Your task to perform on an android device: Go to battery settings Image 0: 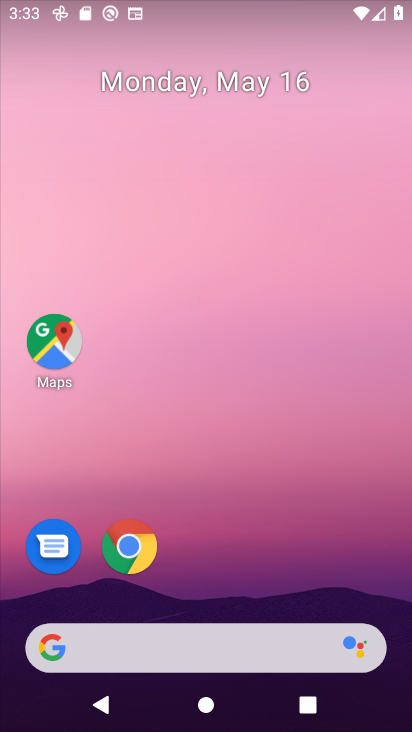
Step 0: drag from (361, 587) to (381, 155)
Your task to perform on an android device: Go to battery settings Image 1: 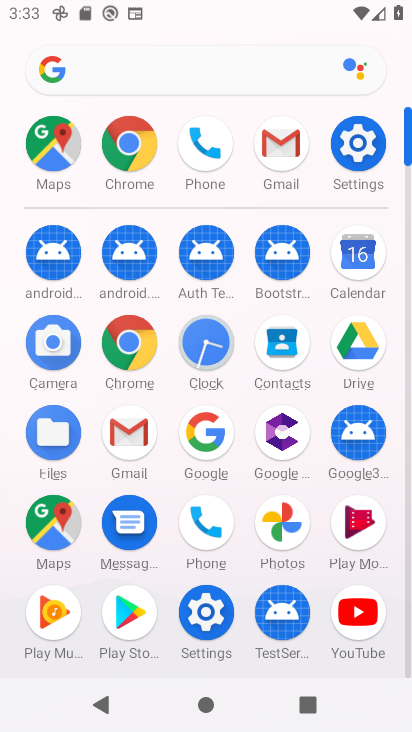
Step 1: click (365, 157)
Your task to perform on an android device: Go to battery settings Image 2: 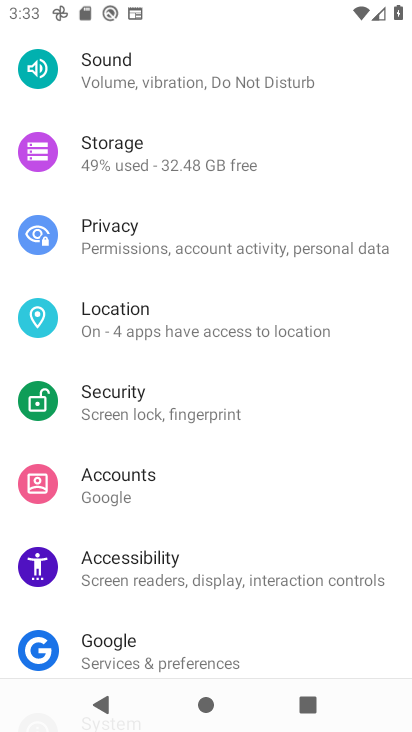
Step 2: drag from (322, 512) to (315, 425)
Your task to perform on an android device: Go to battery settings Image 3: 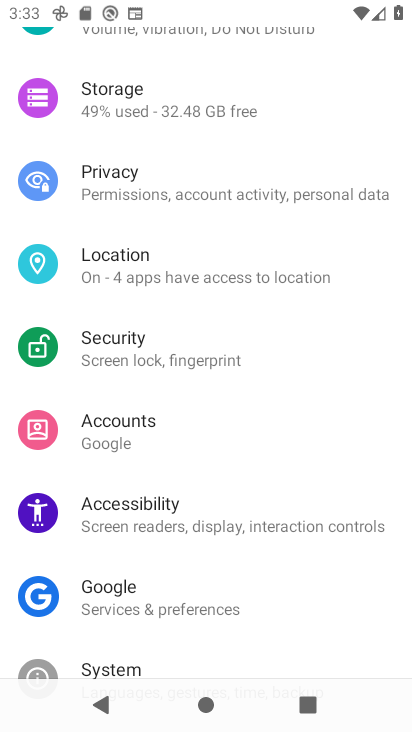
Step 3: drag from (321, 624) to (325, 444)
Your task to perform on an android device: Go to battery settings Image 4: 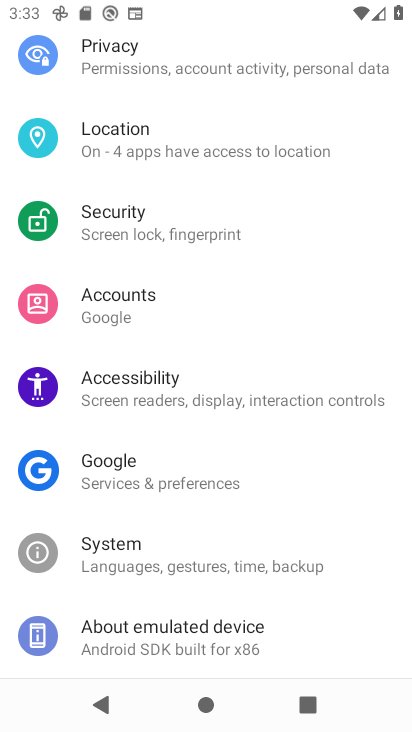
Step 4: drag from (329, 640) to (328, 443)
Your task to perform on an android device: Go to battery settings Image 5: 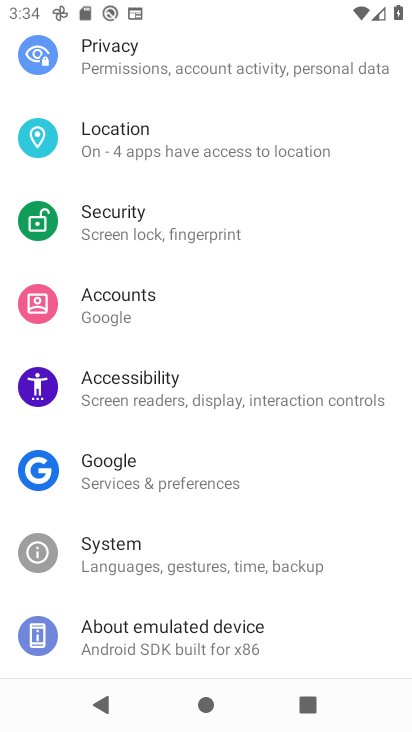
Step 5: drag from (329, 278) to (343, 463)
Your task to perform on an android device: Go to battery settings Image 6: 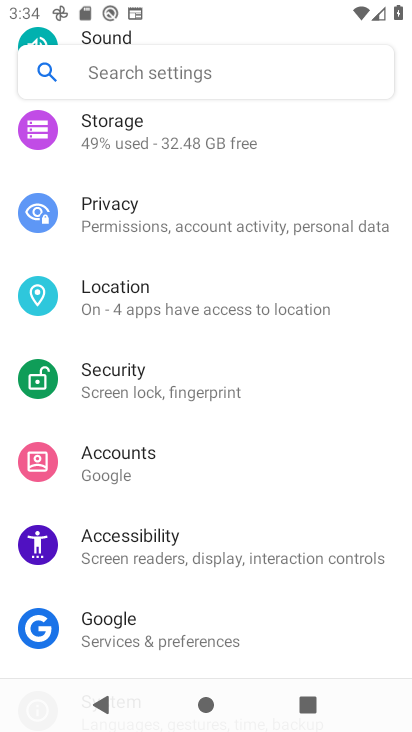
Step 6: drag from (368, 277) to (363, 368)
Your task to perform on an android device: Go to battery settings Image 7: 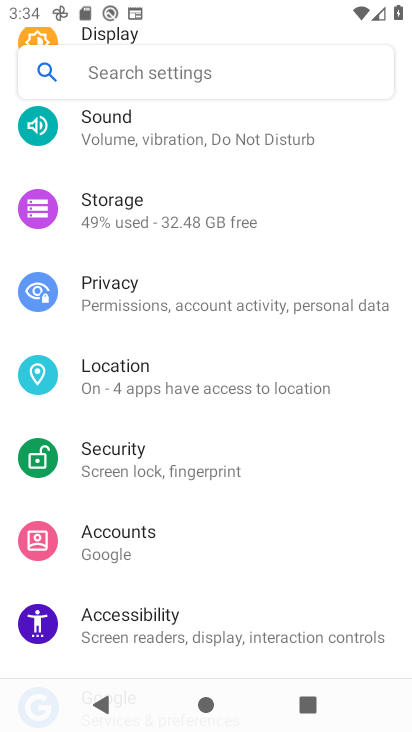
Step 7: drag from (360, 239) to (363, 356)
Your task to perform on an android device: Go to battery settings Image 8: 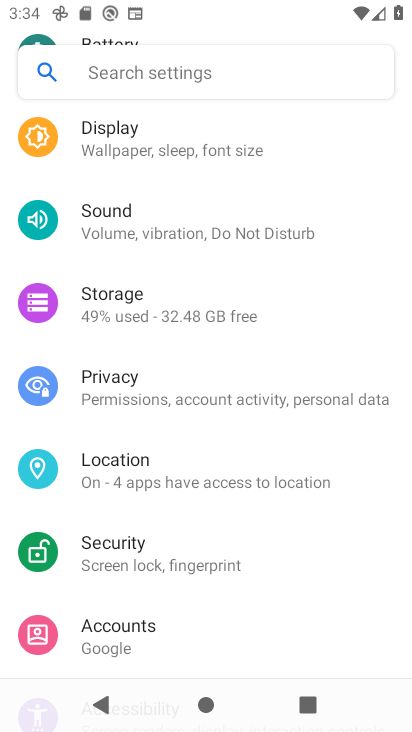
Step 8: drag from (358, 223) to (357, 345)
Your task to perform on an android device: Go to battery settings Image 9: 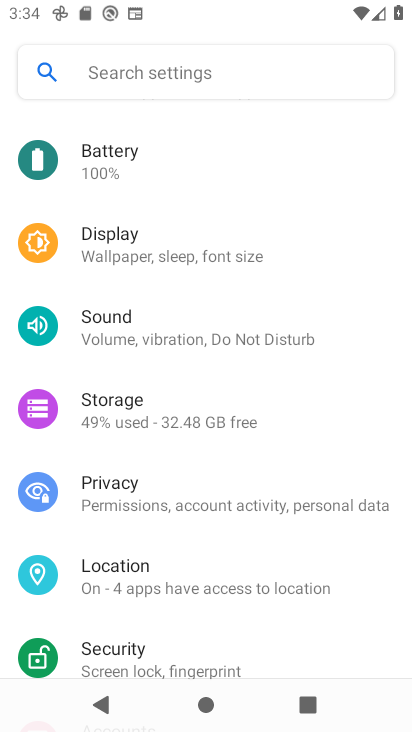
Step 9: drag from (345, 188) to (347, 334)
Your task to perform on an android device: Go to battery settings Image 10: 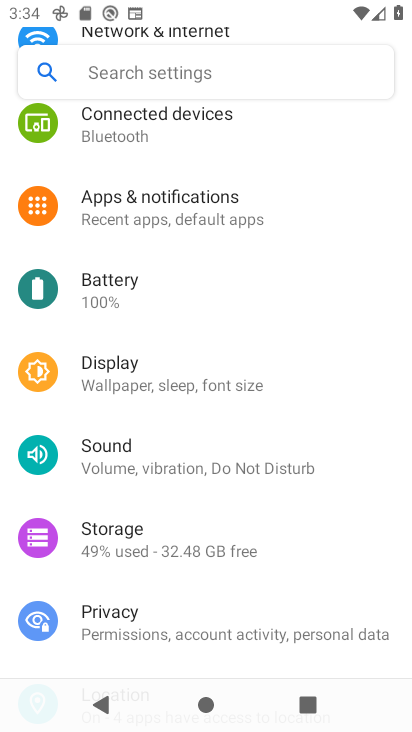
Step 10: drag from (349, 209) to (348, 332)
Your task to perform on an android device: Go to battery settings Image 11: 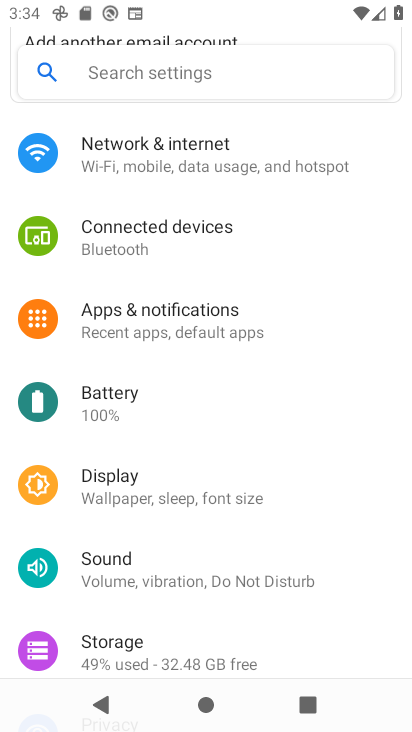
Step 11: click (111, 411)
Your task to perform on an android device: Go to battery settings Image 12: 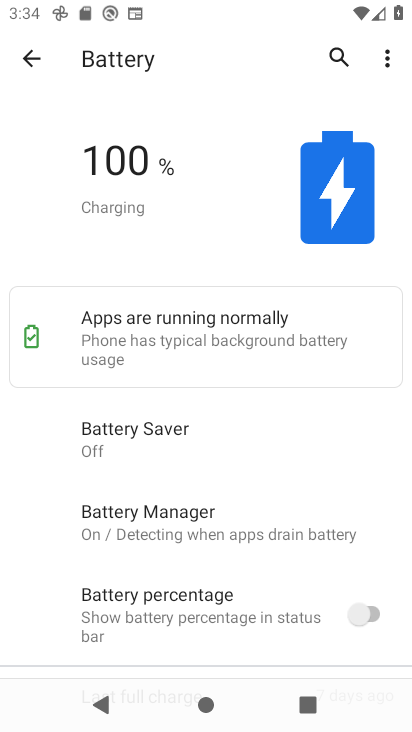
Step 12: task complete